Your task to perform on an android device: open sync settings in chrome Image 0: 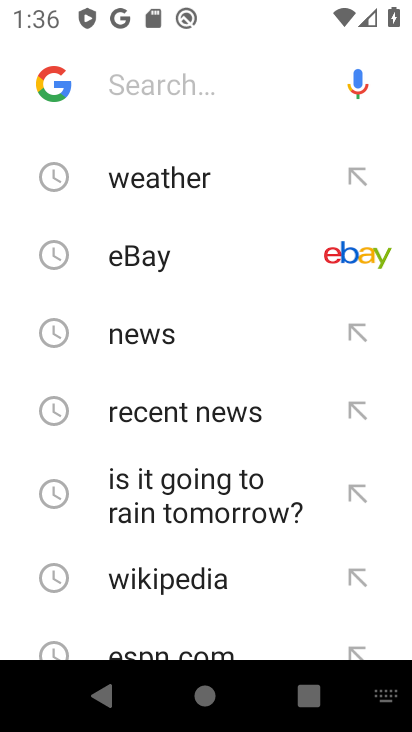
Step 0: press home button
Your task to perform on an android device: open sync settings in chrome Image 1: 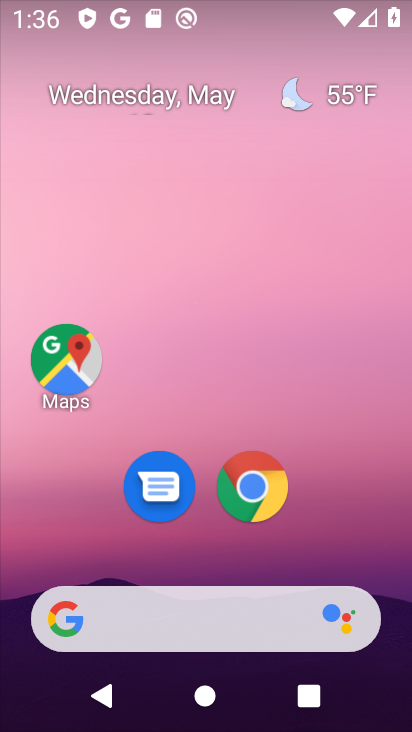
Step 1: click (270, 480)
Your task to perform on an android device: open sync settings in chrome Image 2: 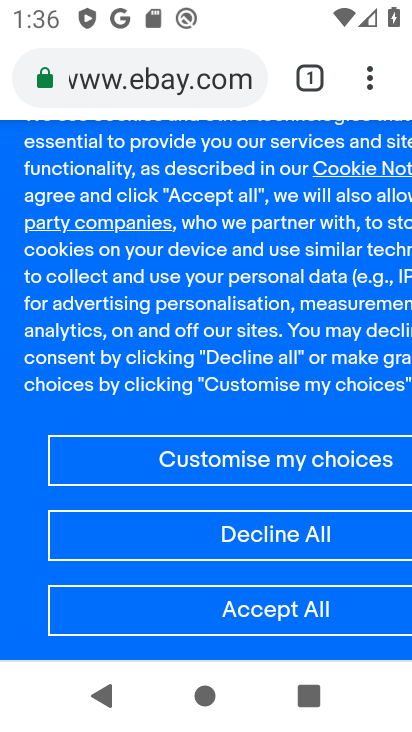
Step 2: click (370, 71)
Your task to perform on an android device: open sync settings in chrome Image 3: 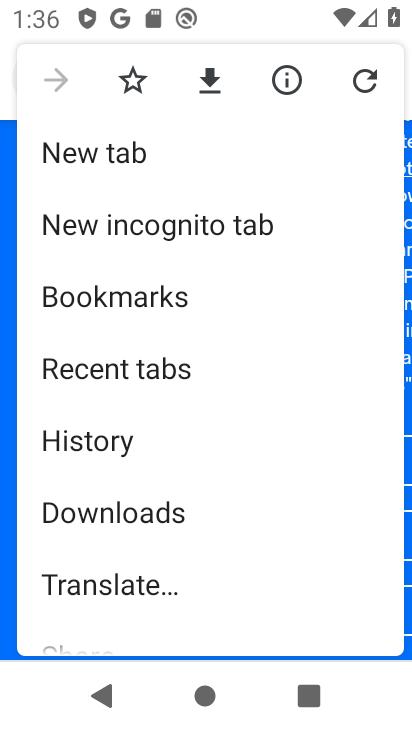
Step 3: drag from (79, 556) to (79, 230)
Your task to perform on an android device: open sync settings in chrome Image 4: 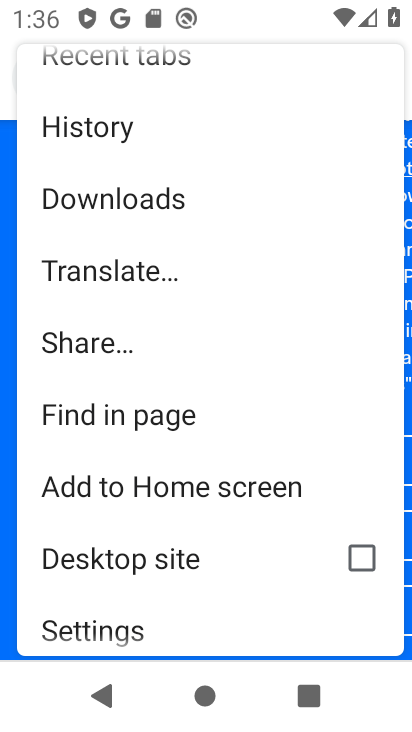
Step 4: click (106, 618)
Your task to perform on an android device: open sync settings in chrome Image 5: 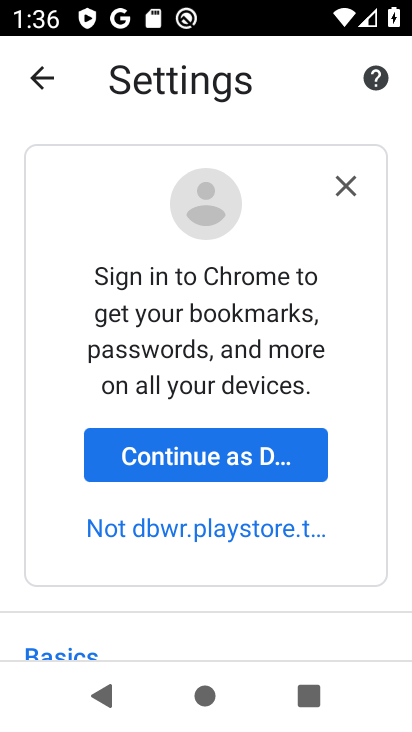
Step 5: drag from (209, 632) to (289, 259)
Your task to perform on an android device: open sync settings in chrome Image 6: 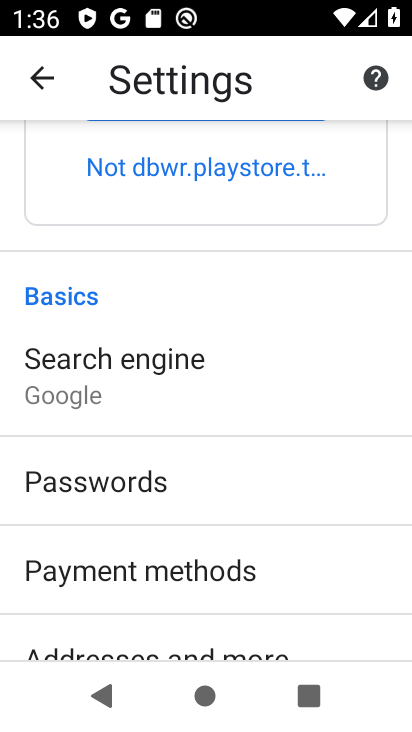
Step 6: drag from (225, 533) to (280, 72)
Your task to perform on an android device: open sync settings in chrome Image 7: 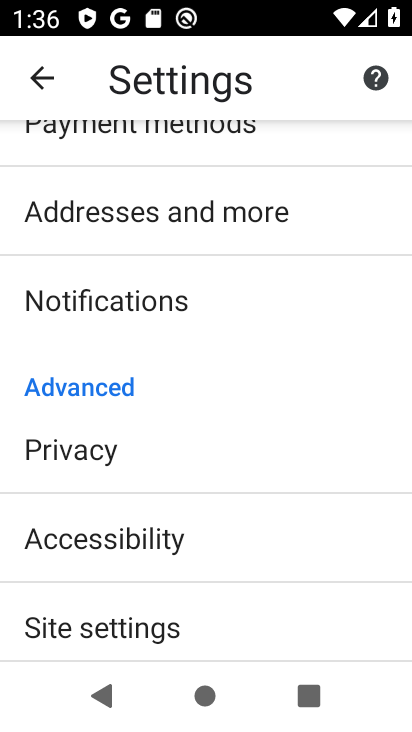
Step 7: drag from (218, 438) to (243, 219)
Your task to perform on an android device: open sync settings in chrome Image 8: 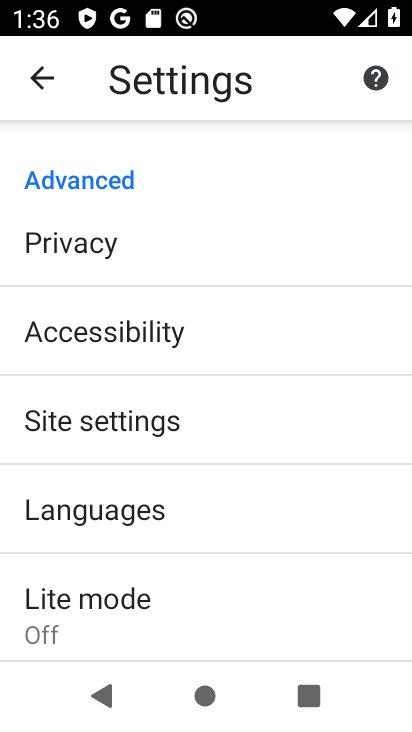
Step 8: click (107, 440)
Your task to perform on an android device: open sync settings in chrome Image 9: 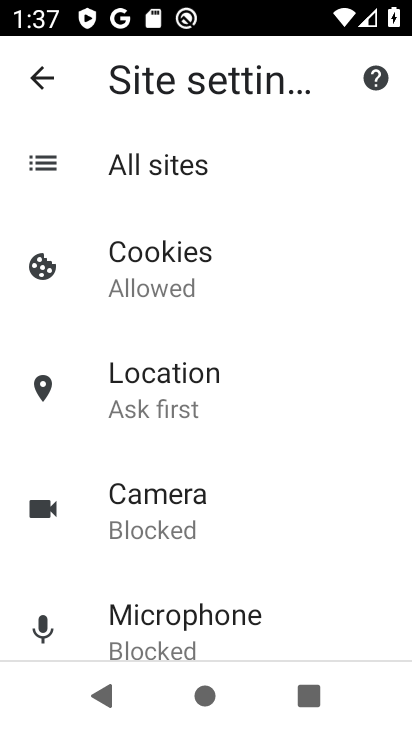
Step 9: drag from (108, 438) to (249, 217)
Your task to perform on an android device: open sync settings in chrome Image 10: 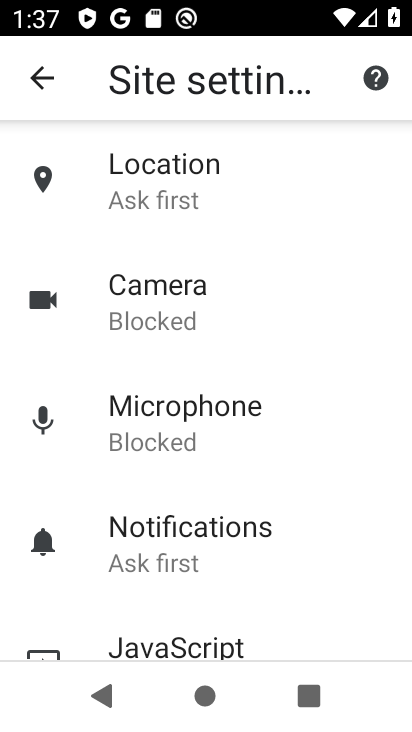
Step 10: drag from (168, 509) to (318, 221)
Your task to perform on an android device: open sync settings in chrome Image 11: 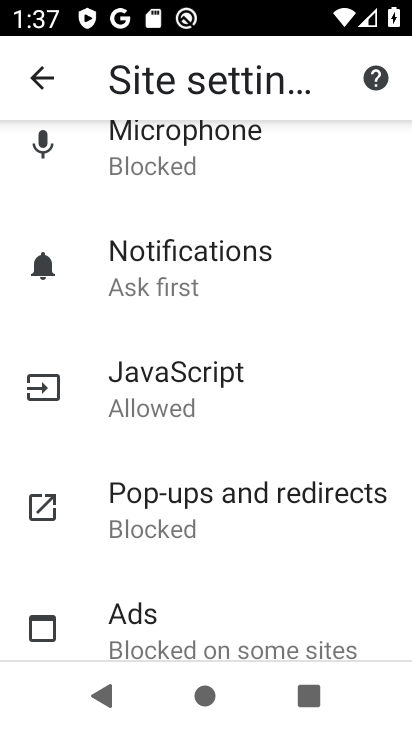
Step 11: drag from (246, 574) to (323, 208)
Your task to perform on an android device: open sync settings in chrome Image 12: 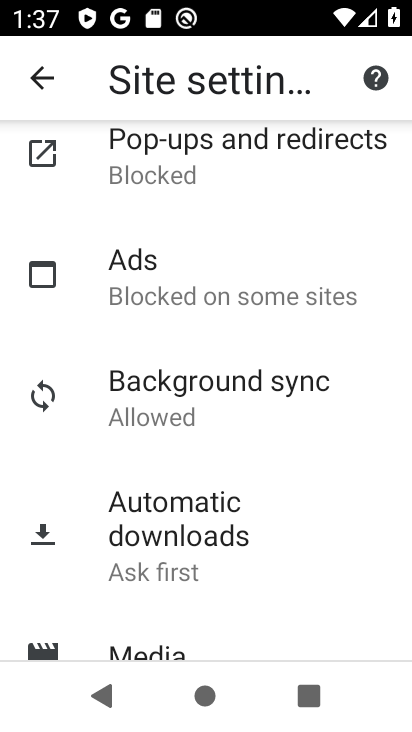
Step 12: drag from (278, 376) to (318, 224)
Your task to perform on an android device: open sync settings in chrome Image 13: 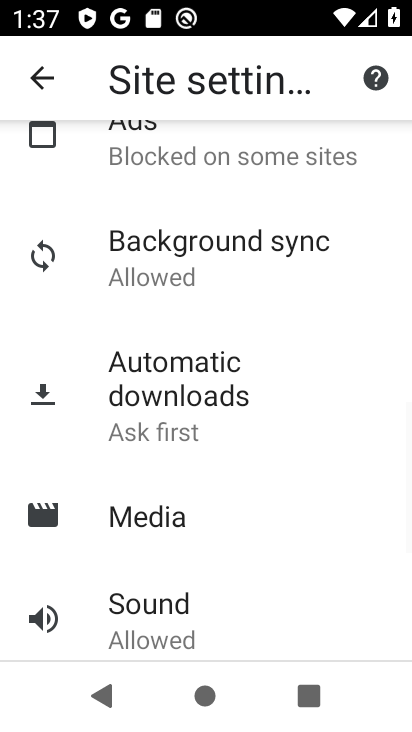
Step 13: click (306, 250)
Your task to perform on an android device: open sync settings in chrome Image 14: 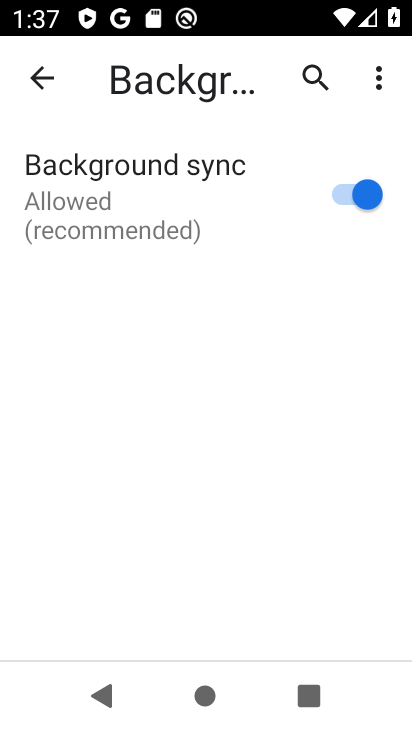
Step 14: task complete